Your task to perform on an android device: turn off picture-in-picture Image 0: 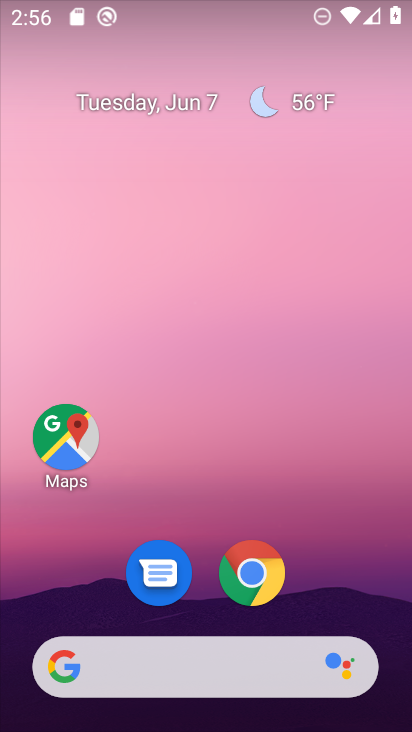
Step 0: click (269, 576)
Your task to perform on an android device: turn off picture-in-picture Image 1: 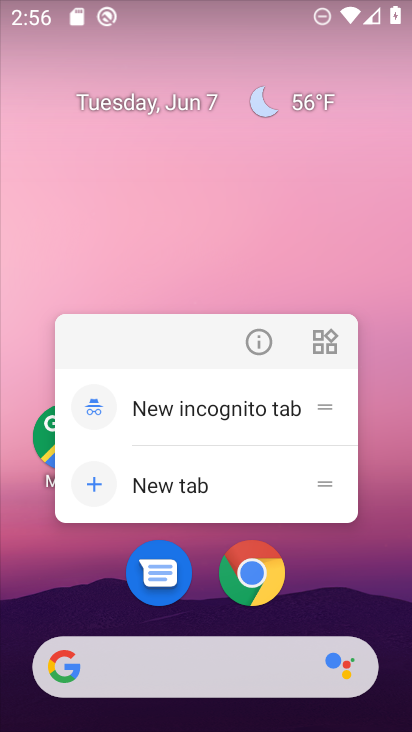
Step 1: click (253, 345)
Your task to perform on an android device: turn off picture-in-picture Image 2: 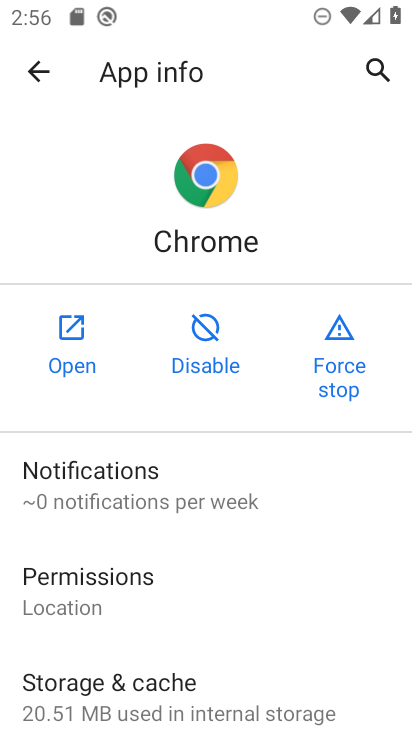
Step 2: drag from (183, 623) to (217, 73)
Your task to perform on an android device: turn off picture-in-picture Image 3: 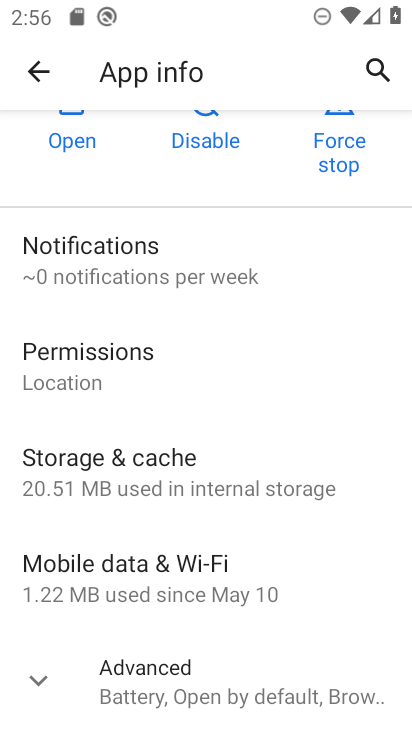
Step 3: click (232, 660)
Your task to perform on an android device: turn off picture-in-picture Image 4: 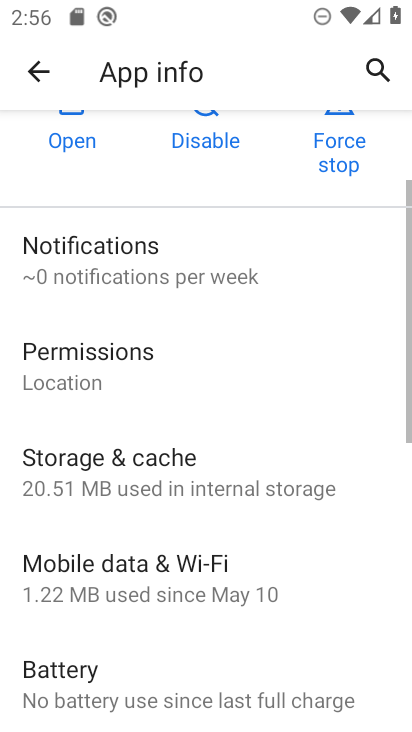
Step 4: drag from (229, 643) to (333, 170)
Your task to perform on an android device: turn off picture-in-picture Image 5: 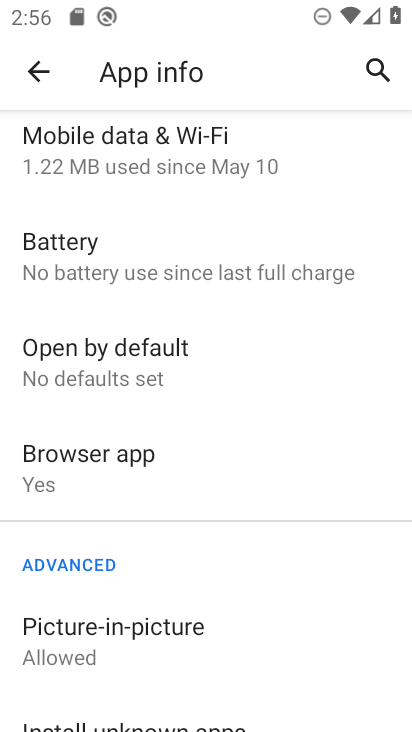
Step 5: click (147, 638)
Your task to perform on an android device: turn off picture-in-picture Image 6: 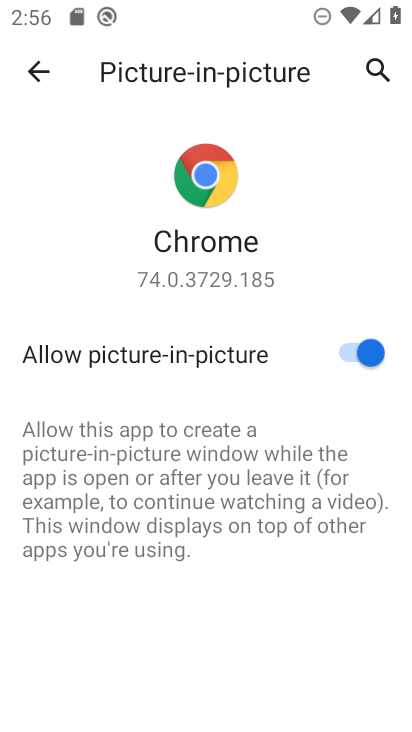
Step 6: click (346, 353)
Your task to perform on an android device: turn off picture-in-picture Image 7: 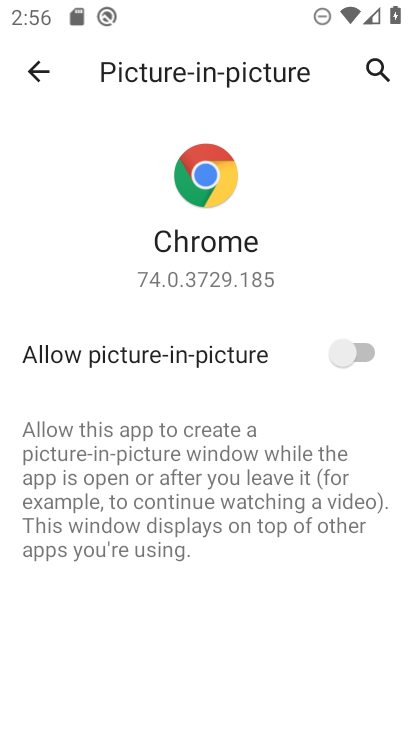
Step 7: task complete